Your task to perform on an android device: Open Google Image 0: 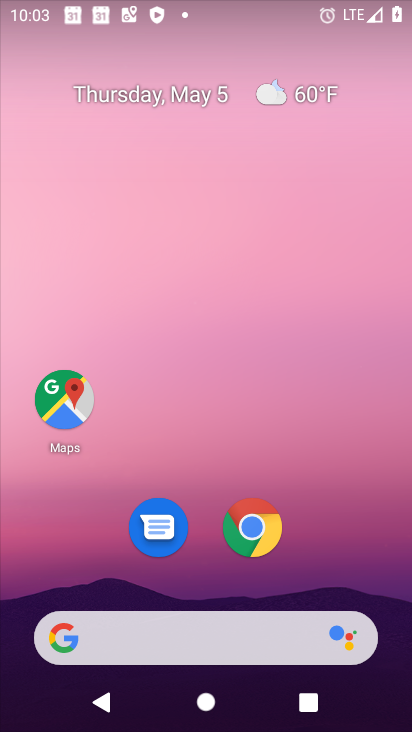
Step 0: click (144, 635)
Your task to perform on an android device: Open Google Image 1: 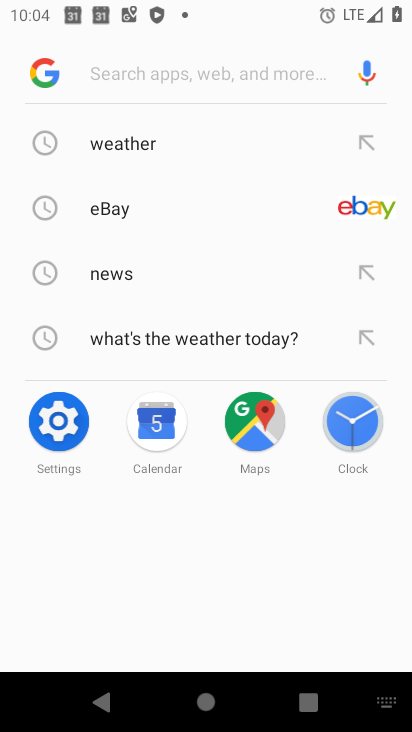
Step 1: task complete